Your task to perform on an android device: Open Yahoo.com Image 0: 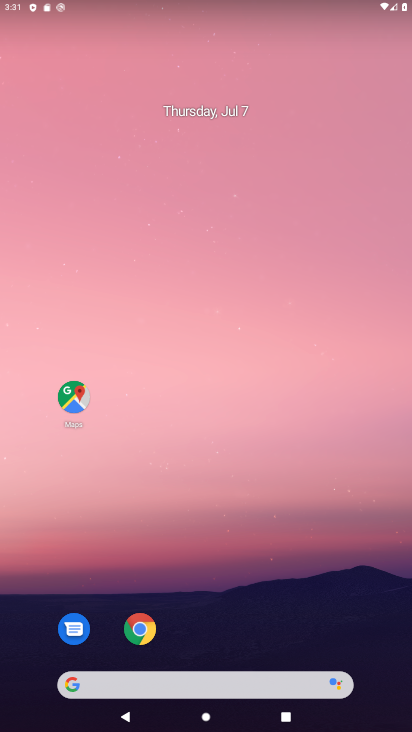
Step 0: click (160, 687)
Your task to perform on an android device: Open Yahoo.com Image 1: 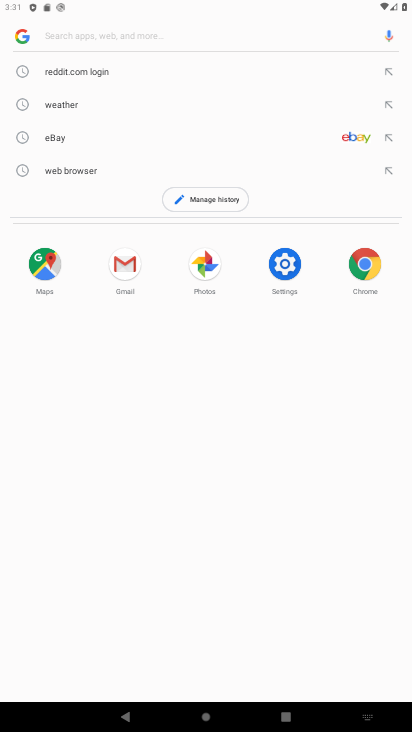
Step 1: click (58, 30)
Your task to perform on an android device: Open Yahoo.com Image 2: 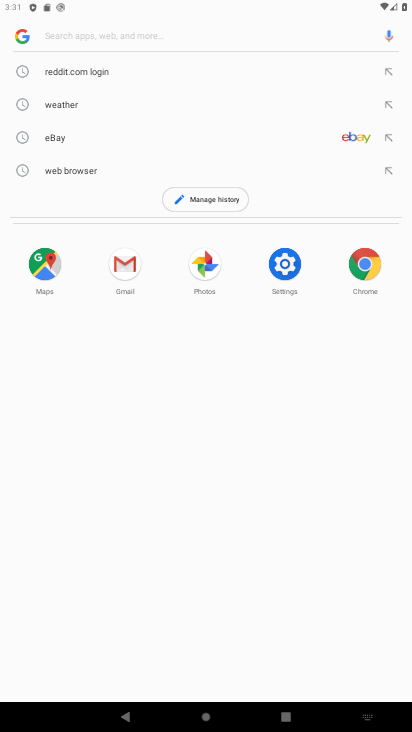
Step 2: type "Yahoo.com"
Your task to perform on an android device: Open Yahoo.com Image 3: 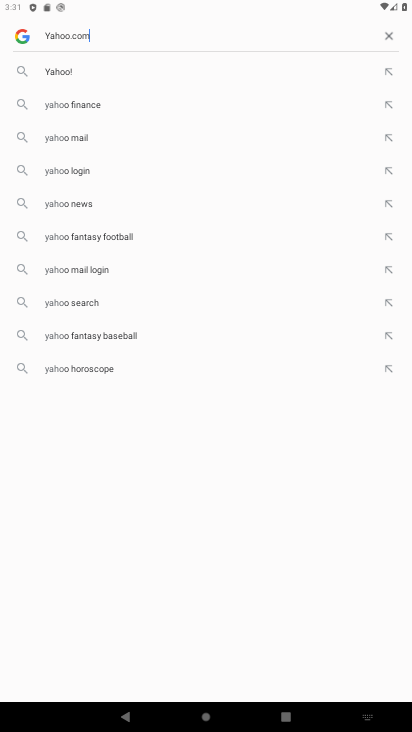
Step 3: type ""
Your task to perform on an android device: Open Yahoo.com Image 4: 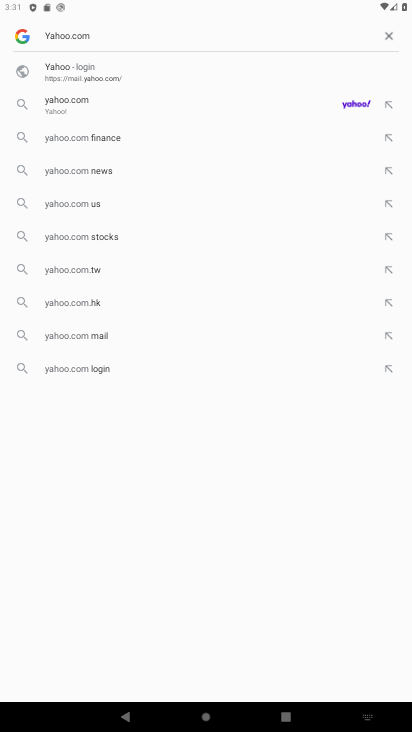
Step 4: click (103, 71)
Your task to perform on an android device: Open Yahoo.com Image 5: 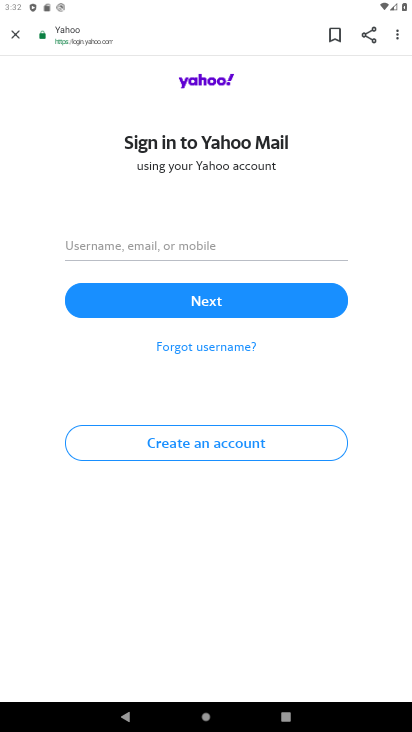
Step 5: task complete